Your task to perform on an android device: Go to Amazon Image 0: 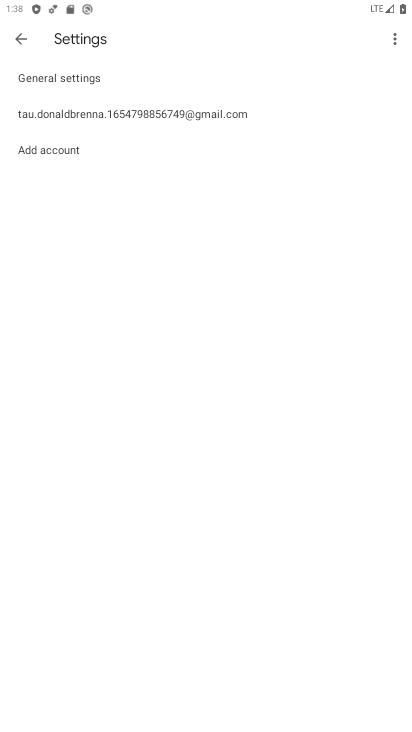
Step 0: press home button
Your task to perform on an android device: Go to Amazon Image 1: 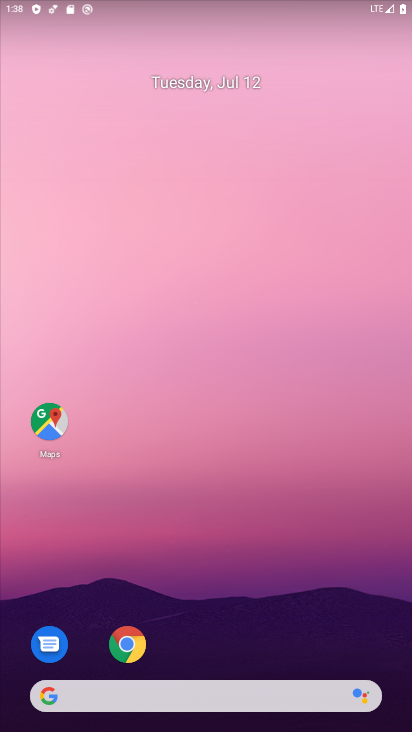
Step 1: drag from (209, 672) to (149, 123)
Your task to perform on an android device: Go to Amazon Image 2: 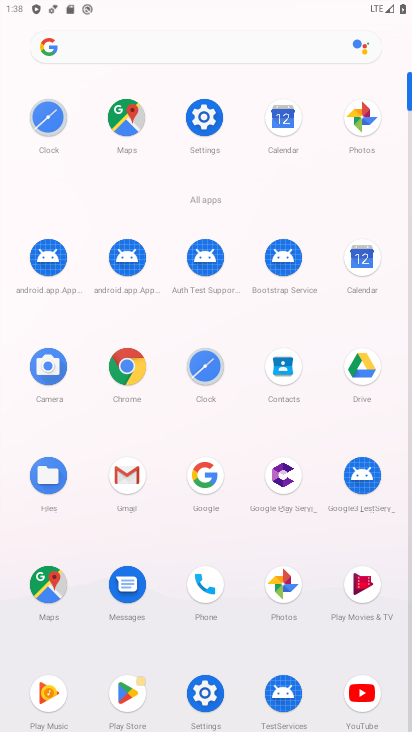
Step 2: click (120, 362)
Your task to perform on an android device: Go to Amazon Image 3: 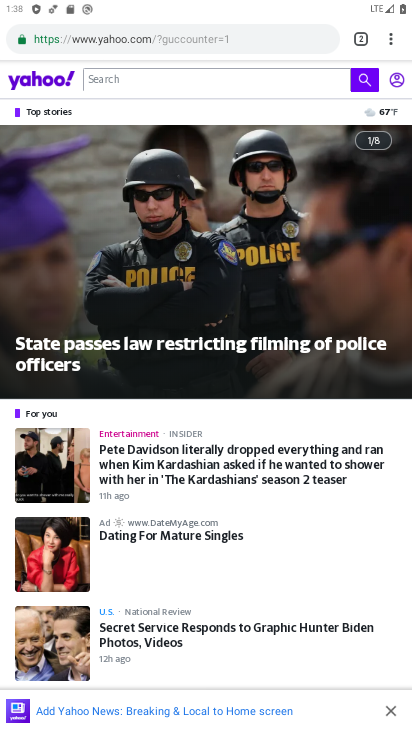
Step 3: click (354, 34)
Your task to perform on an android device: Go to Amazon Image 4: 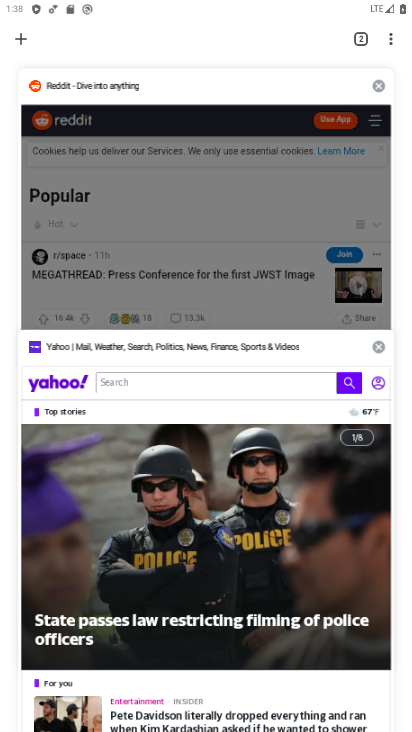
Step 4: click (23, 37)
Your task to perform on an android device: Go to Amazon Image 5: 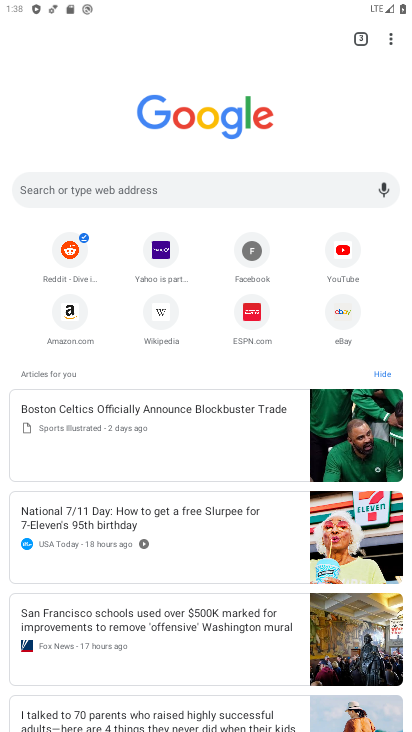
Step 5: click (77, 305)
Your task to perform on an android device: Go to Amazon Image 6: 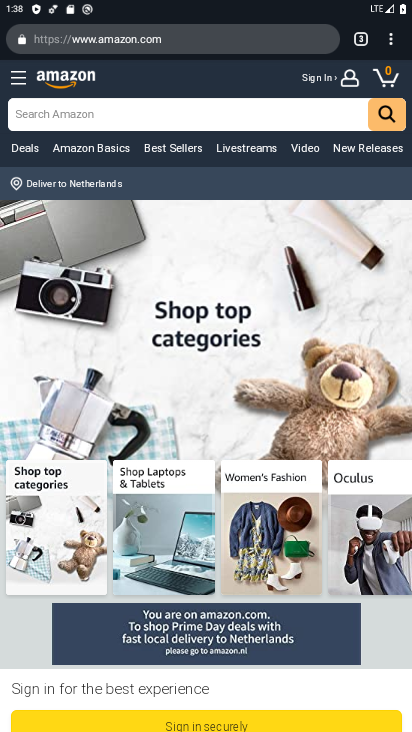
Step 6: task complete